Your task to perform on an android device: check android version Image 0: 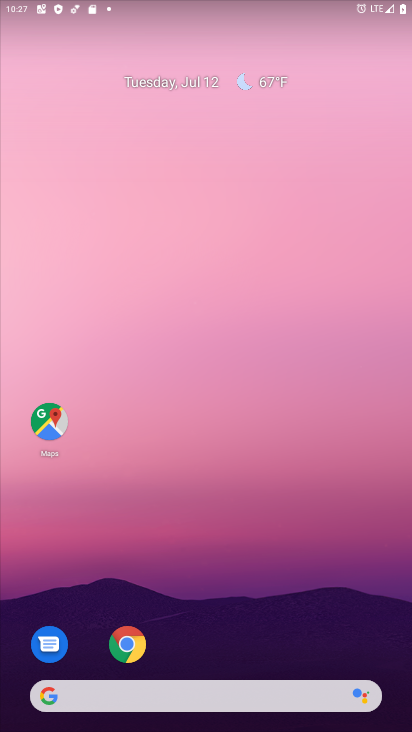
Step 0: drag from (200, 612) to (307, 136)
Your task to perform on an android device: check android version Image 1: 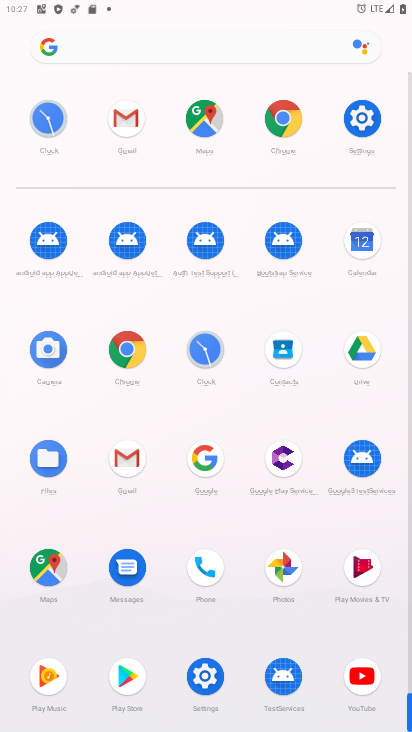
Step 1: click (365, 117)
Your task to perform on an android device: check android version Image 2: 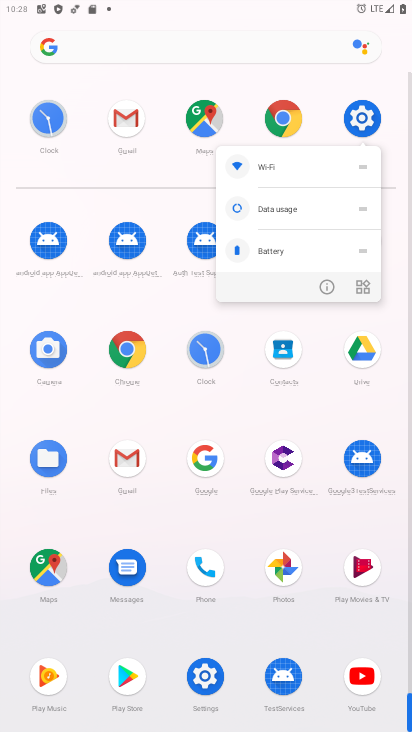
Step 2: click (320, 280)
Your task to perform on an android device: check android version Image 3: 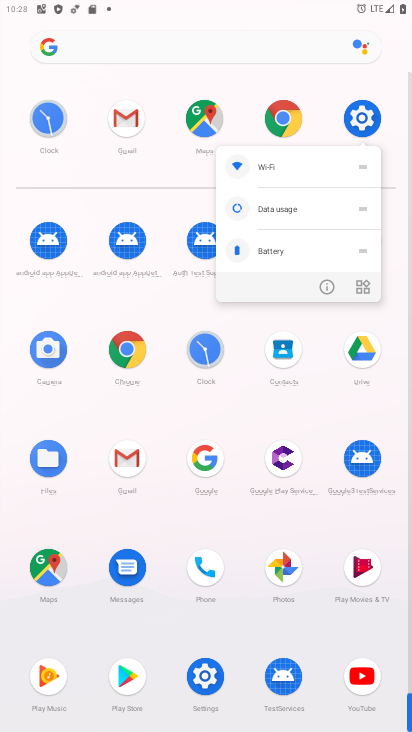
Step 3: click (320, 280)
Your task to perform on an android device: check android version Image 4: 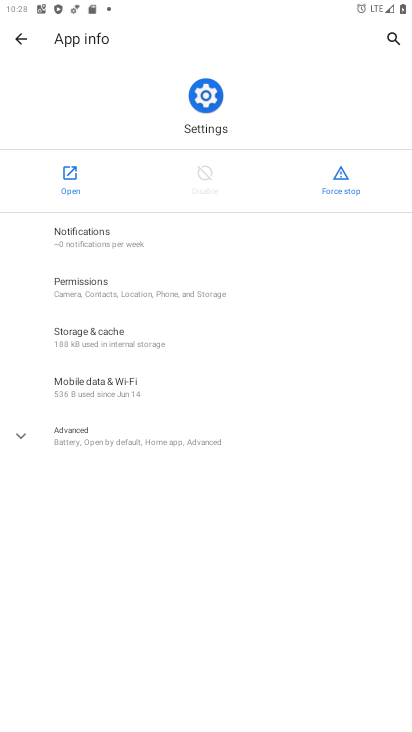
Step 4: click (65, 189)
Your task to perform on an android device: check android version Image 5: 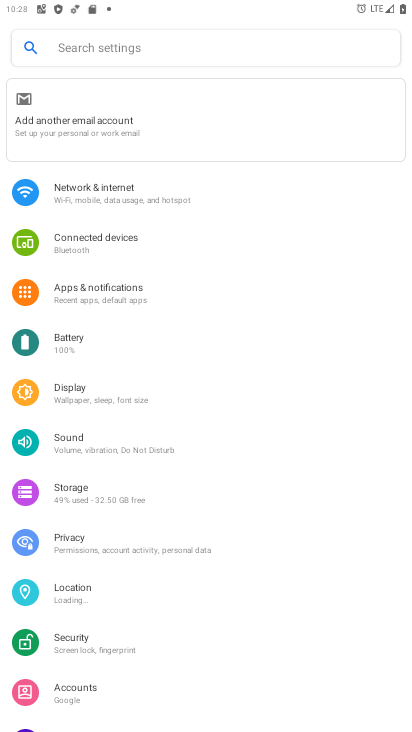
Step 5: drag from (186, 533) to (253, 114)
Your task to perform on an android device: check android version Image 6: 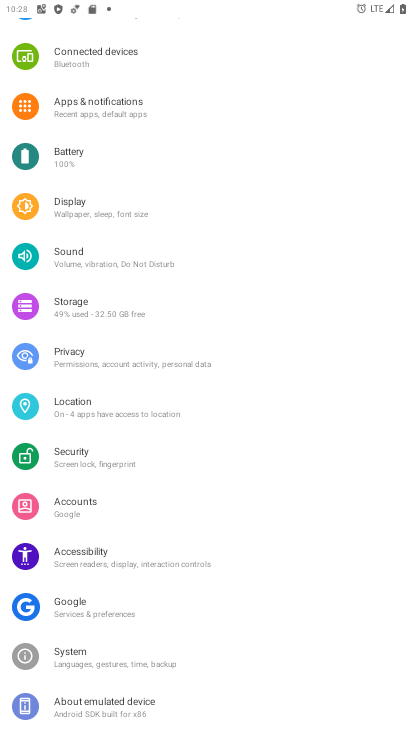
Step 6: click (89, 695)
Your task to perform on an android device: check android version Image 7: 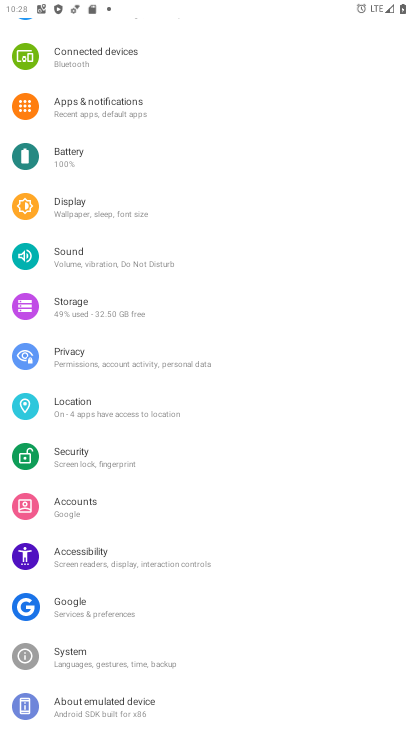
Step 7: click (89, 695)
Your task to perform on an android device: check android version Image 8: 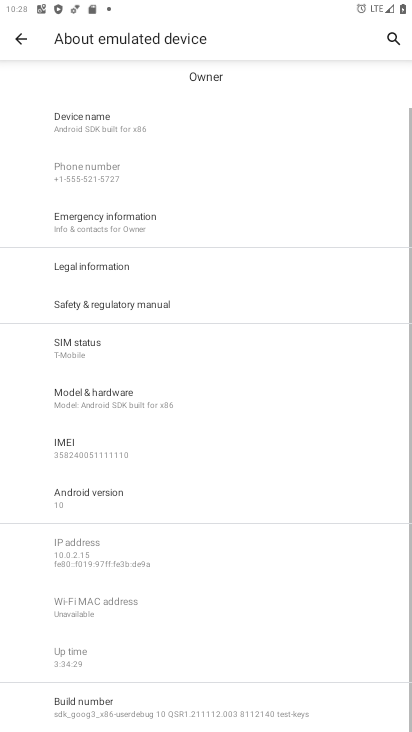
Step 8: click (109, 492)
Your task to perform on an android device: check android version Image 9: 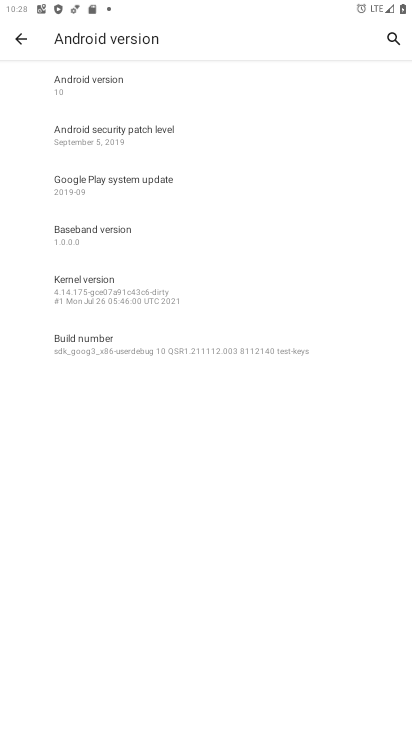
Step 9: task complete